Your task to perform on an android device: snooze an email in the gmail app Image 0: 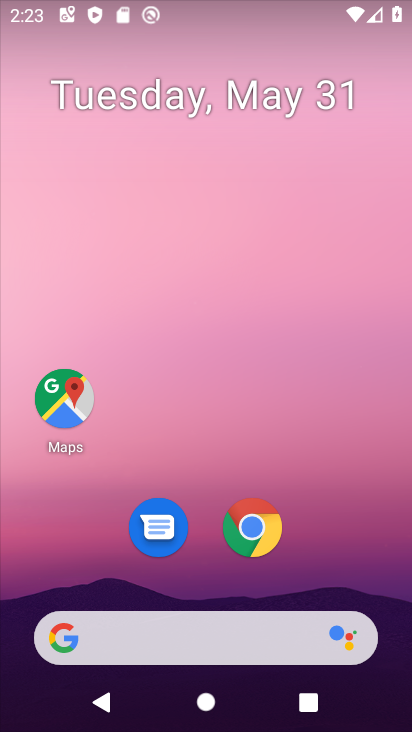
Step 0: drag from (330, 539) to (360, 72)
Your task to perform on an android device: snooze an email in the gmail app Image 1: 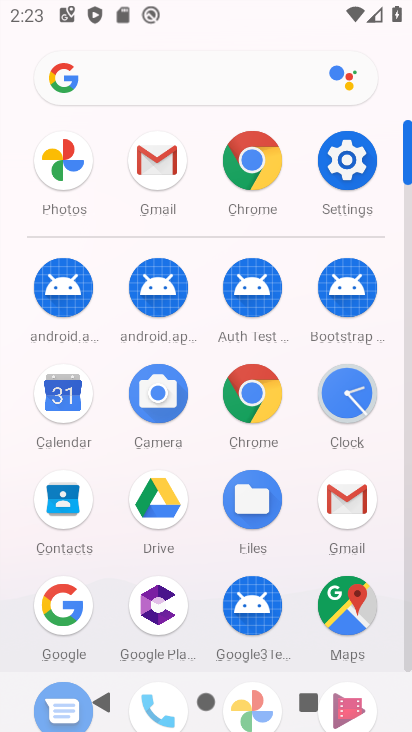
Step 1: click (151, 161)
Your task to perform on an android device: snooze an email in the gmail app Image 2: 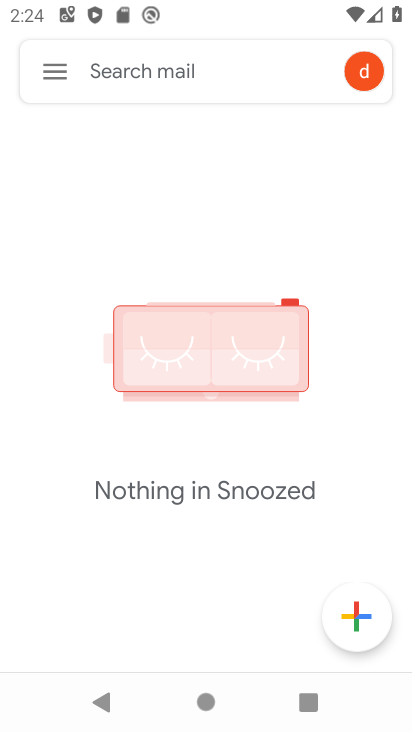
Step 2: click (45, 81)
Your task to perform on an android device: snooze an email in the gmail app Image 3: 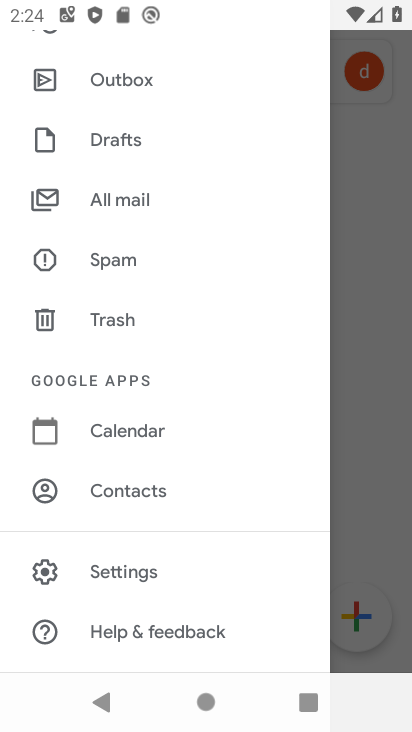
Step 3: drag from (138, 200) to (153, 531)
Your task to perform on an android device: snooze an email in the gmail app Image 4: 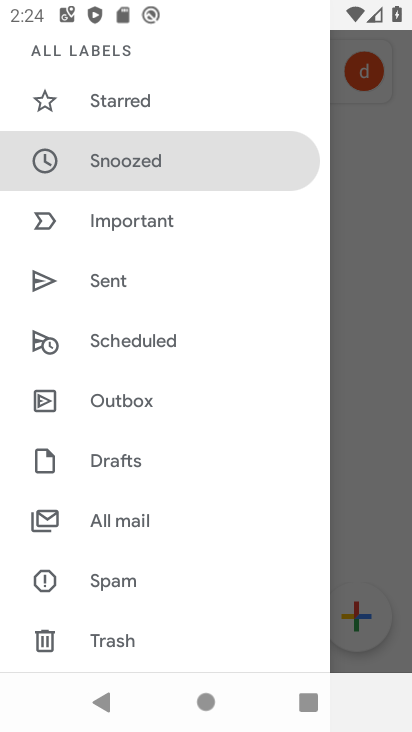
Step 4: drag from (137, 215) to (145, 537)
Your task to perform on an android device: snooze an email in the gmail app Image 5: 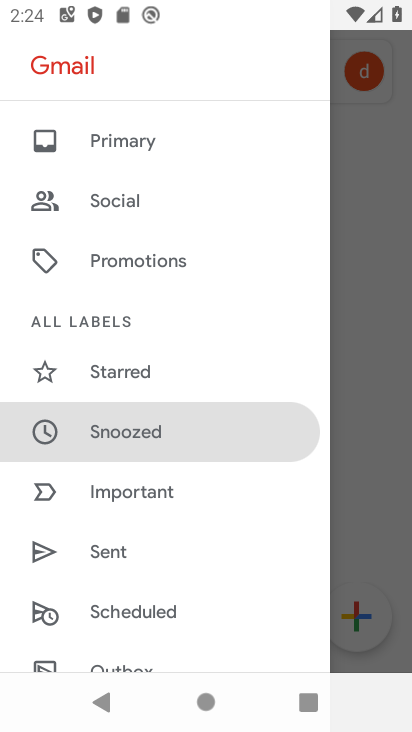
Step 5: drag from (229, 300) to (250, 520)
Your task to perform on an android device: snooze an email in the gmail app Image 6: 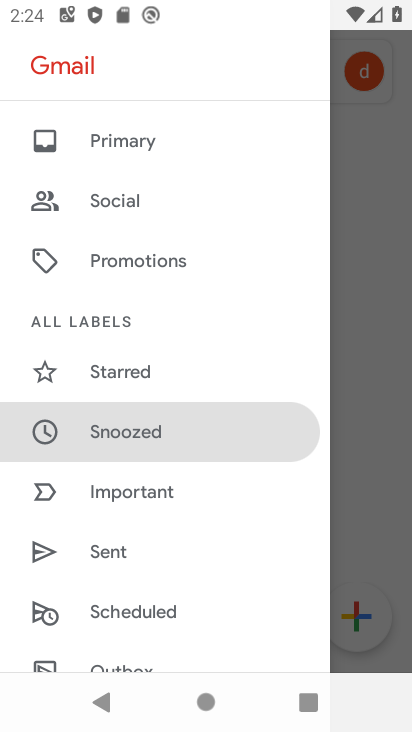
Step 6: drag from (217, 580) to (249, 208)
Your task to perform on an android device: snooze an email in the gmail app Image 7: 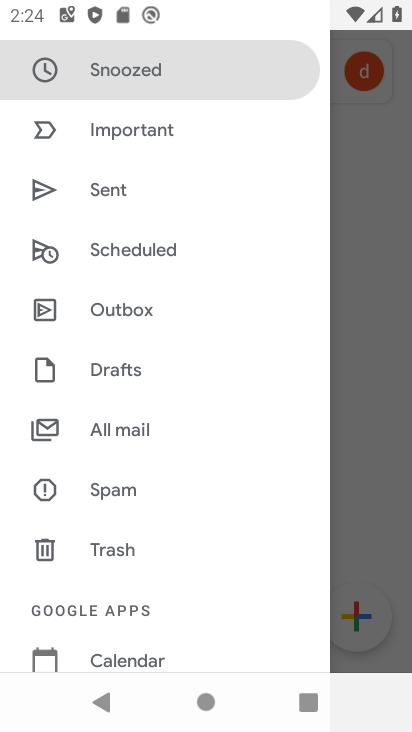
Step 7: click (124, 435)
Your task to perform on an android device: snooze an email in the gmail app Image 8: 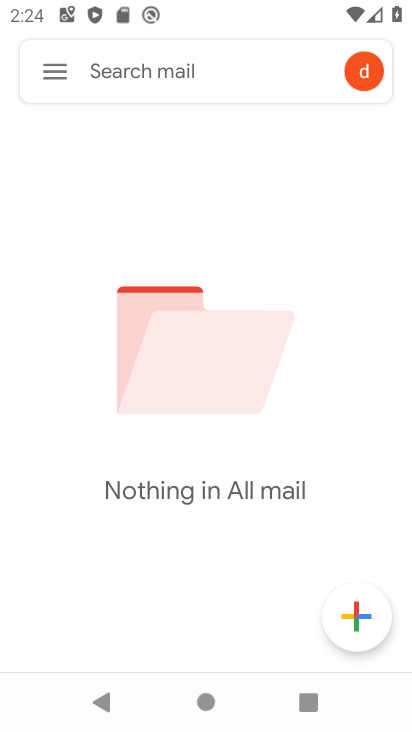
Step 8: task complete